Your task to perform on an android device: read, delete, or share a saved page in the chrome app Image 0: 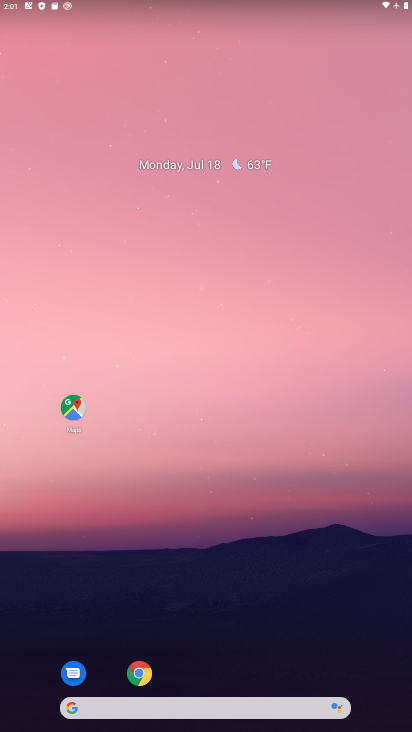
Step 0: drag from (255, 619) to (243, 96)
Your task to perform on an android device: read, delete, or share a saved page in the chrome app Image 1: 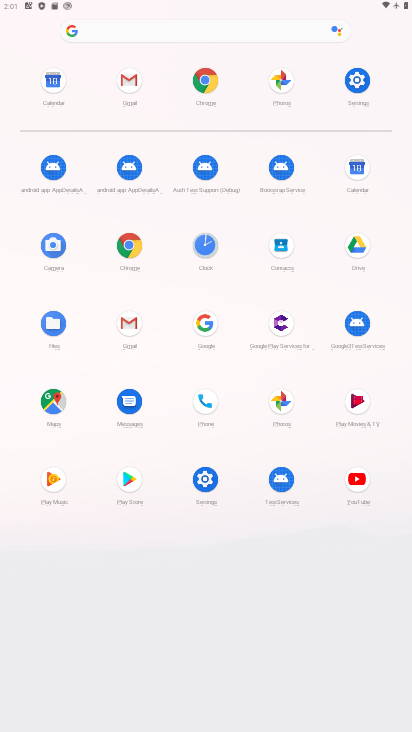
Step 1: click (202, 79)
Your task to perform on an android device: read, delete, or share a saved page in the chrome app Image 2: 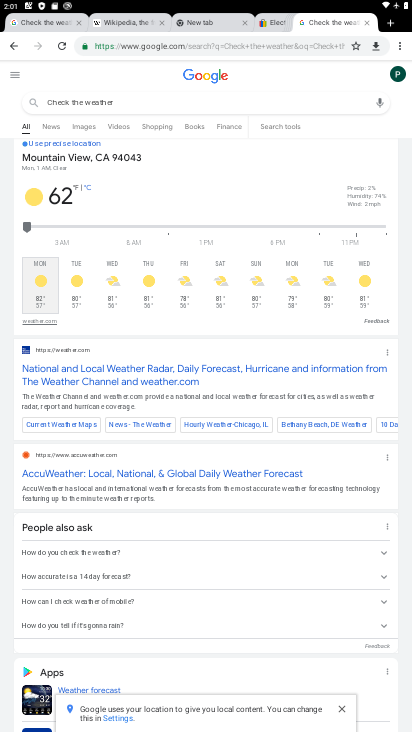
Step 2: click (406, 42)
Your task to perform on an android device: read, delete, or share a saved page in the chrome app Image 3: 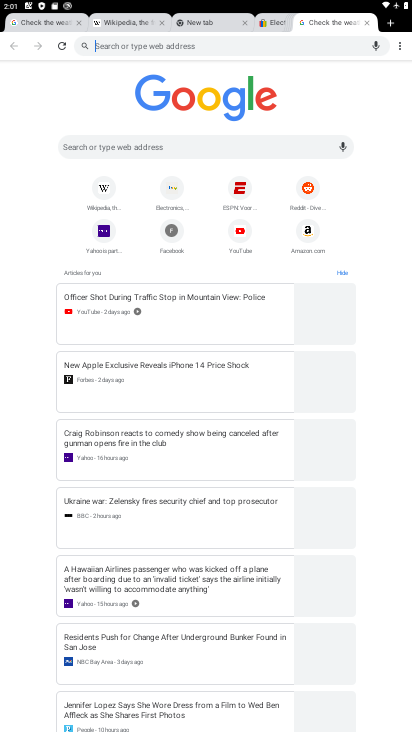
Step 3: click (408, 42)
Your task to perform on an android device: read, delete, or share a saved page in the chrome app Image 4: 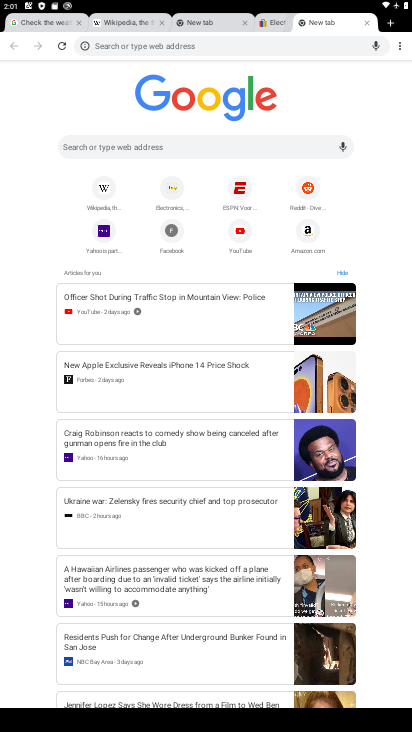
Step 4: click (400, 40)
Your task to perform on an android device: read, delete, or share a saved page in the chrome app Image 5: 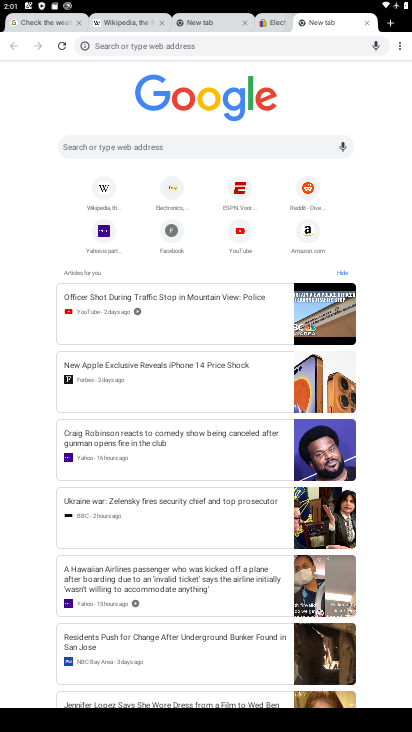
Step 5: click (398, 47)
Your task to perform on an android device: read, delete, or share a saved page in the chrome app Image 6: 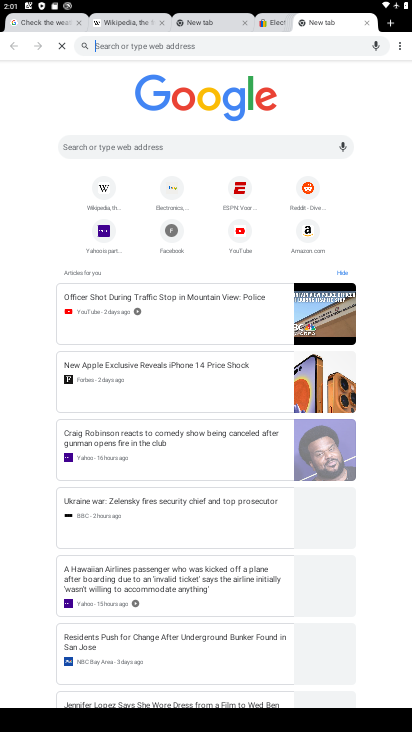
Step 6: click (398, 44)
Your task to perform on an android device: read, delete, or share a saved page in the chrome app Image 7: 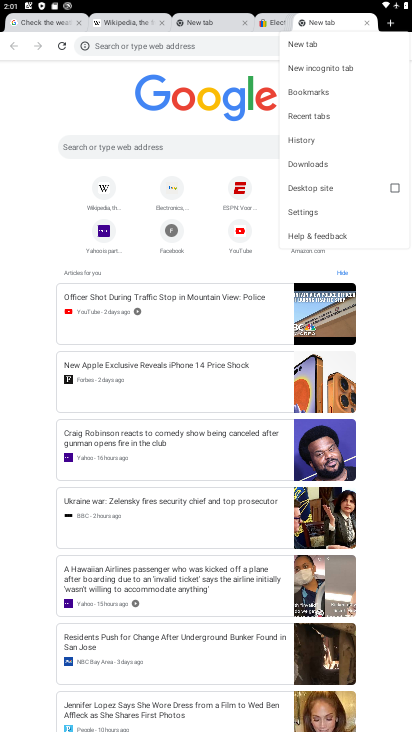
Step 7: click (308, 202)
Your task to perform on an android device: read, delete, or share a saved page in the chrome app Image 8: 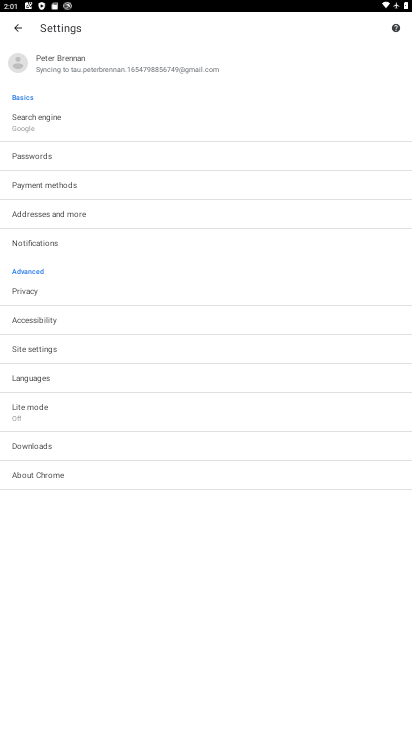
Step 8: click (24, 30)
Your task to perform on an android device: read, delete, or share a saved page in the chrome app Image 9: 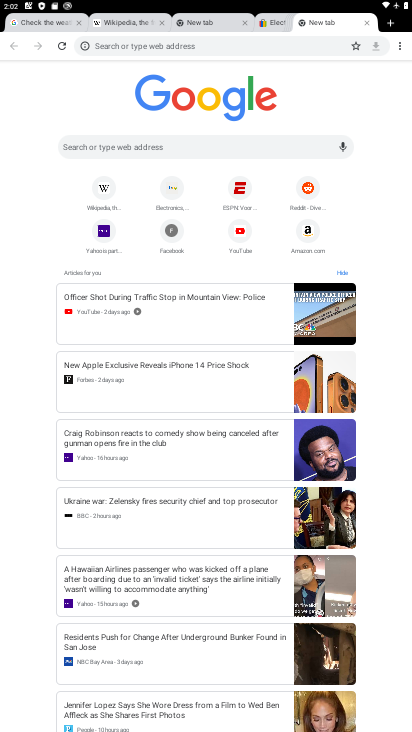
Step 9: task complete